Your task to perform on an android device: Open settings Image 0: 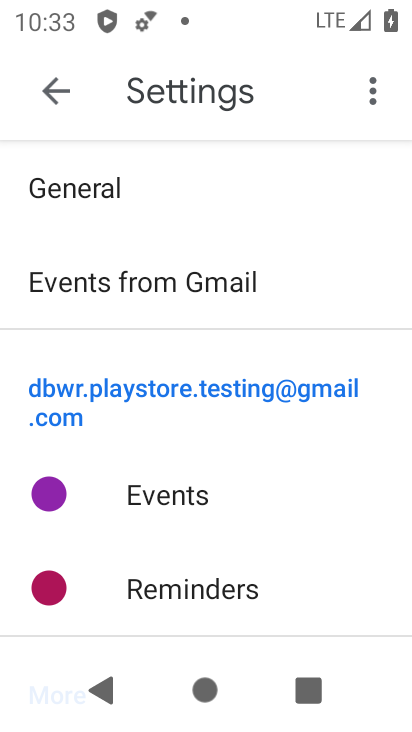
Step 0: press home button
Your task to perform on an android device: Open settings Image 1: 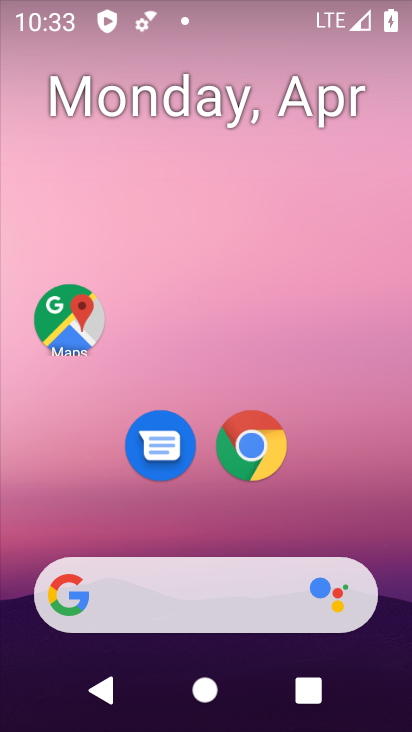
Step 1: drag from (198, 449) to (172, 194)
Your task to perform on an android device: Open settings Image 2: 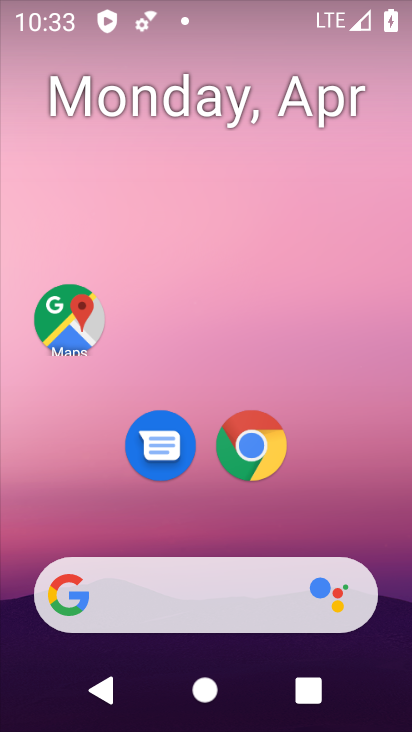
Step 2: drag from (194, 502) to (194, 132)
Your task to perform on an android device: Open settings Image 3: 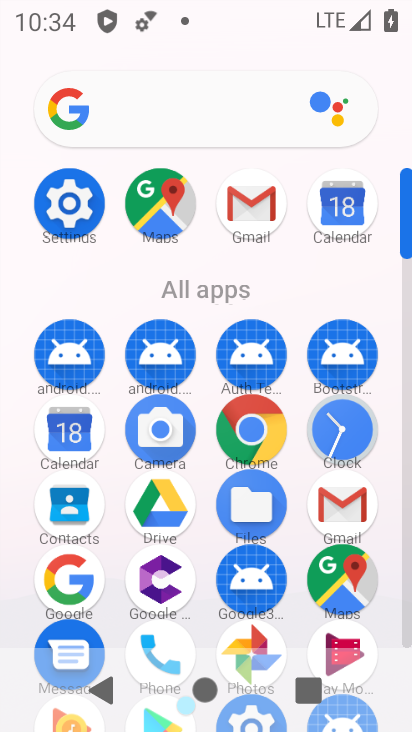
Step 3: click (61, 199)
Your task to perform on an android device: Open settings Image 4: 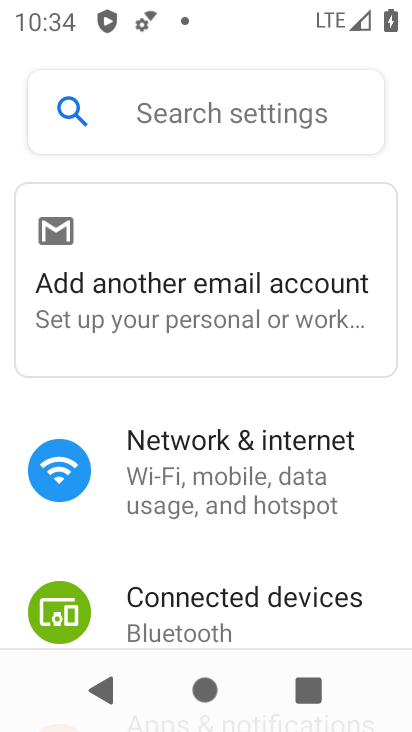
Step 4: task complete